Your task to perform on an android device: Clear the shopping cart on costco. Search for "macbook" on costco, select the first entry, add it to the cart, then select checkout. Image 0: 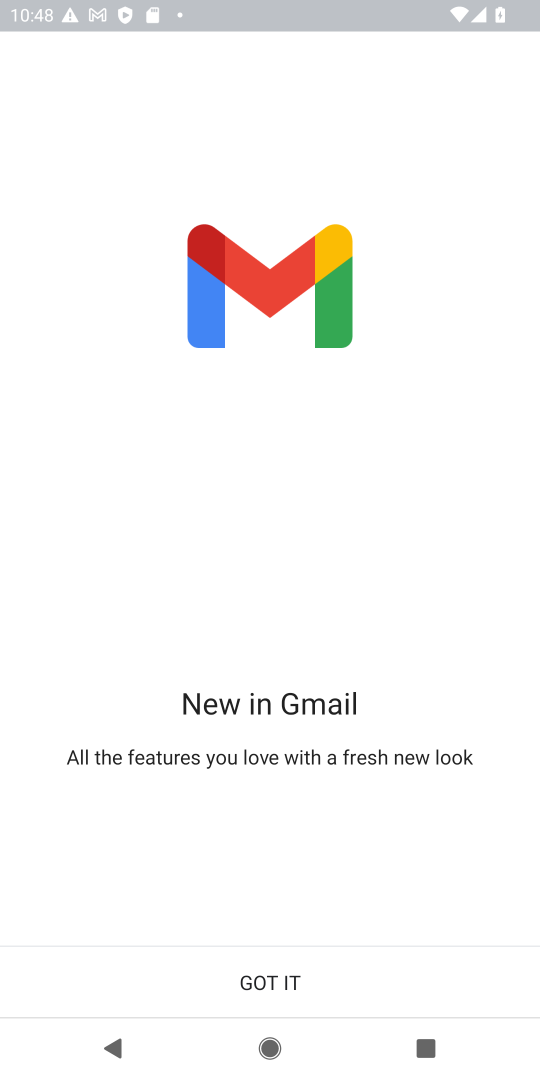
Step 0: press home button
Your task to perform on an android device: Clear the shopping cart on costco. Search for "macbook" on costco, select the first entry, add it to the cart, then select checkout. Image 1: 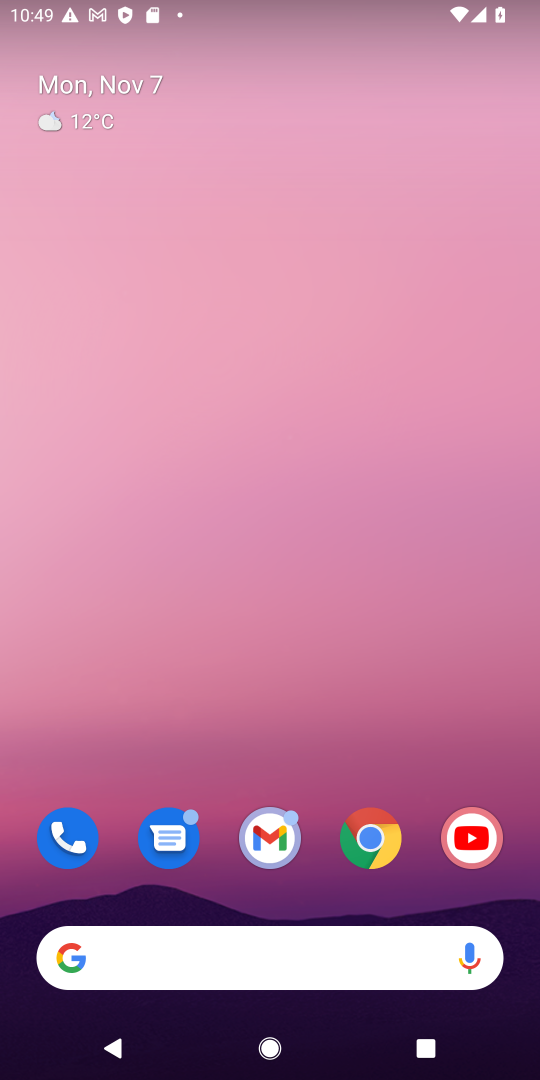
Step 1: click (376, 847)
Your task to perform on an android device: Clear the shopping cart on costco. Search for "macbook" on costco, select the first entry, add it to the cart, then select checkout. Image 2: 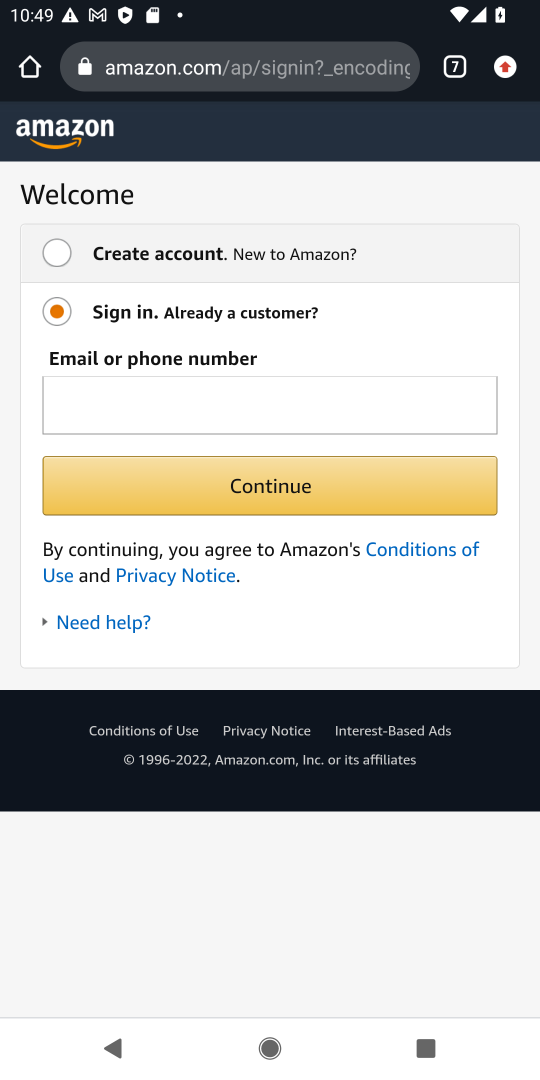
Step 2: click (457, 72)
Your task to perform on an android device: Clear the shopping cart on costco. Search for "macbook" on costco, select the first entry, add it to the cart, then select checkout. Image 3: 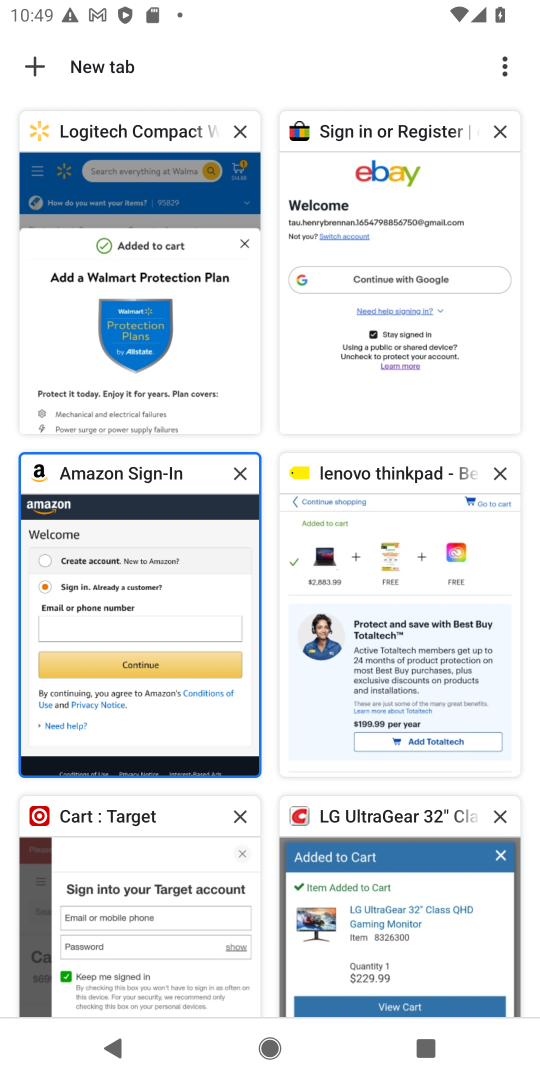
Step 3: click (346, 896)
Your task to perform on an android device: Clear the shopping cart on costco. Search for "macbook" on costco, select the first entry, add it to the cart, then select checkout. Image 4: 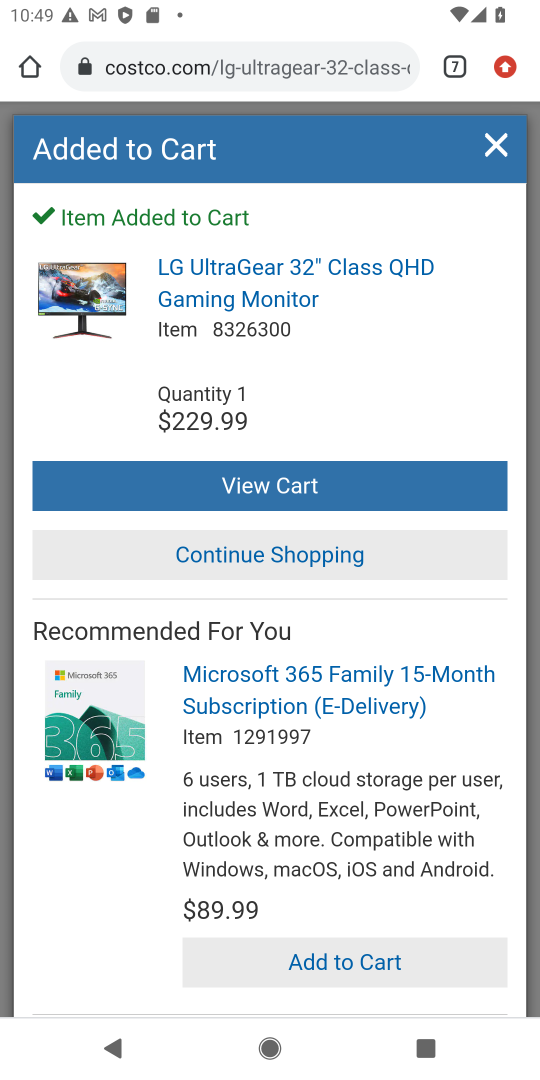
Step 4: click (324, 483)
Your task to perform on an android device: Clear the shopping cart on costco. Search for "macbook" on costco, select the first entry, add it to the cart, then select checkout. Image 5: 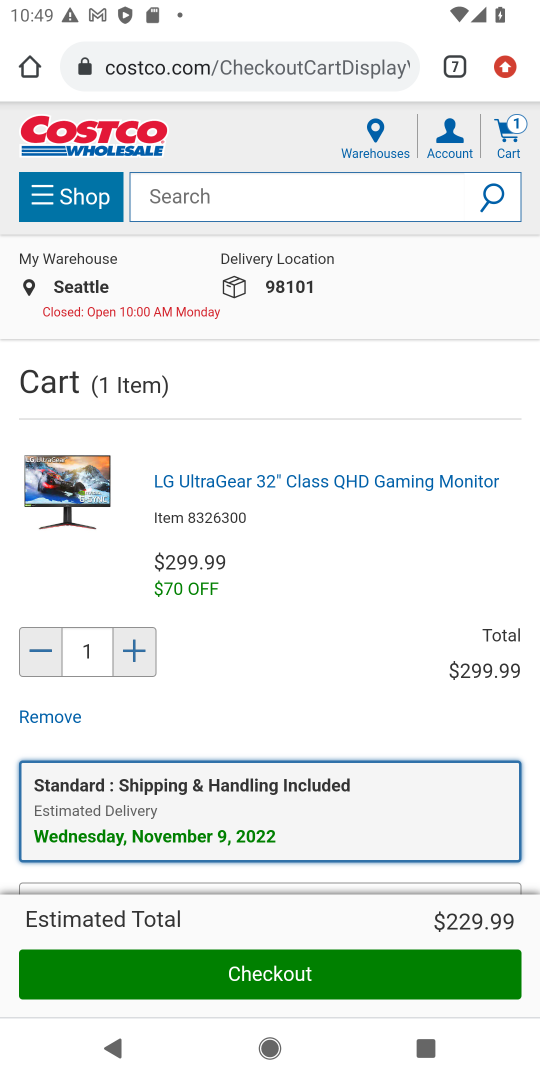
Step 5: click (48, 716)
Your task to perform on an android device: Clear the shopping cart on costco. Search for "macbook" on costco, select the first entry, add it to the cart, then select checkout. Image 6: 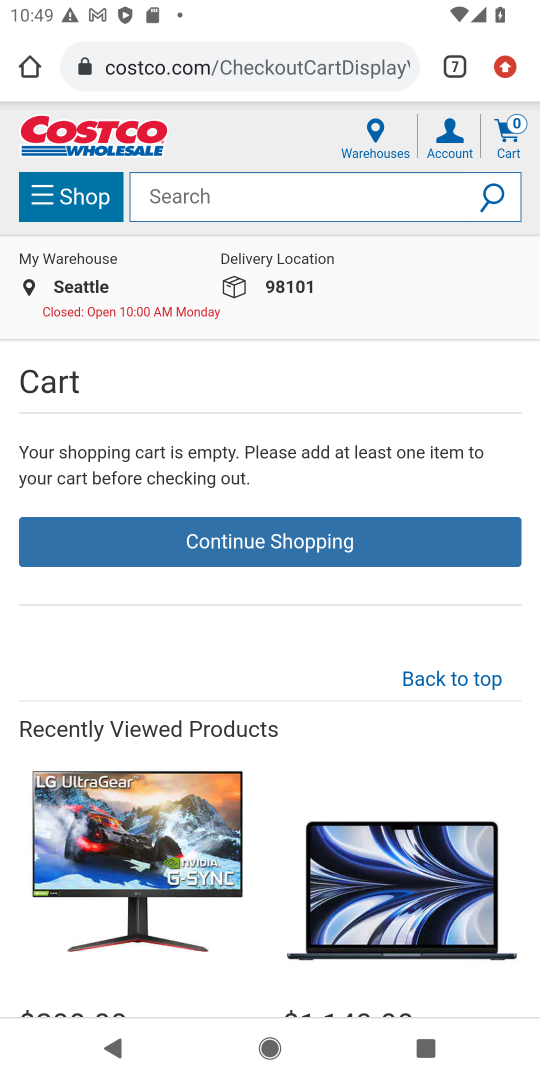
Step 6: click (258, 535)
Your task to perform on an android device: Clear the shopping cart on costco. Search for "macbook" on costco, select the first entry, add it to the cart, then select checkout. Image 7: 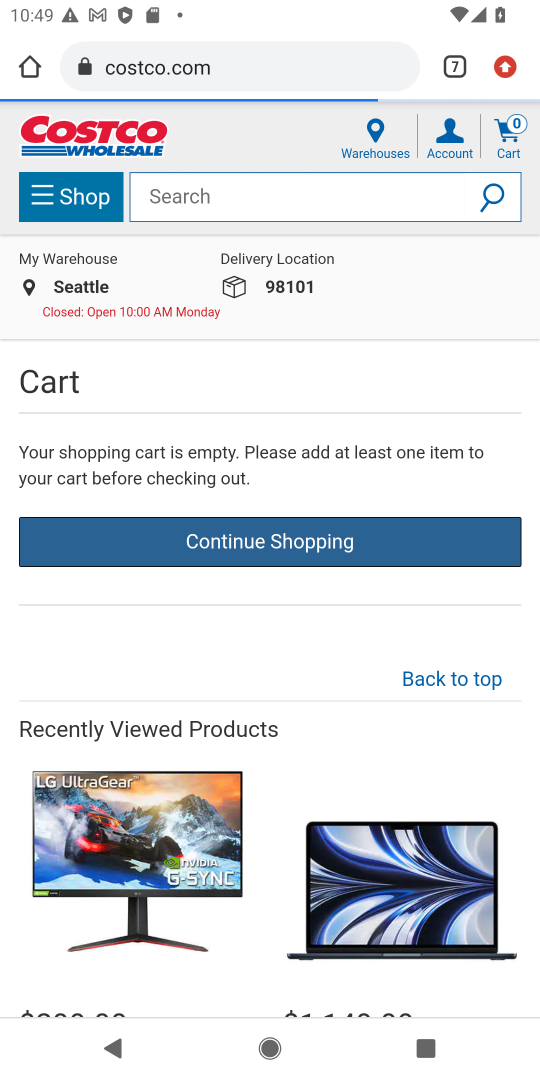
Step 7: click (290, 201)
Your task to perform on an android device: Clear the shopping cart on costco. Search for "macbook" on costco, select the first entry, add it to the cart, then select checkout. Image 8: 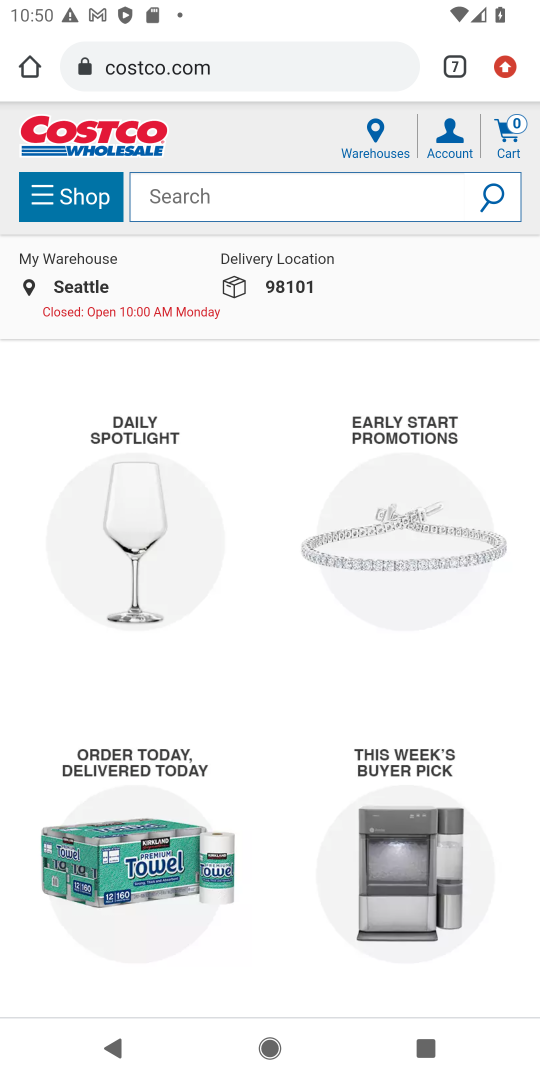
Step 8: type "macbook"
Your task to perform on an android device: Clear the shopping cart on costco. Search for "macbook" on costco, select the first entry, add it to the cart, then select checkout. Image 9: 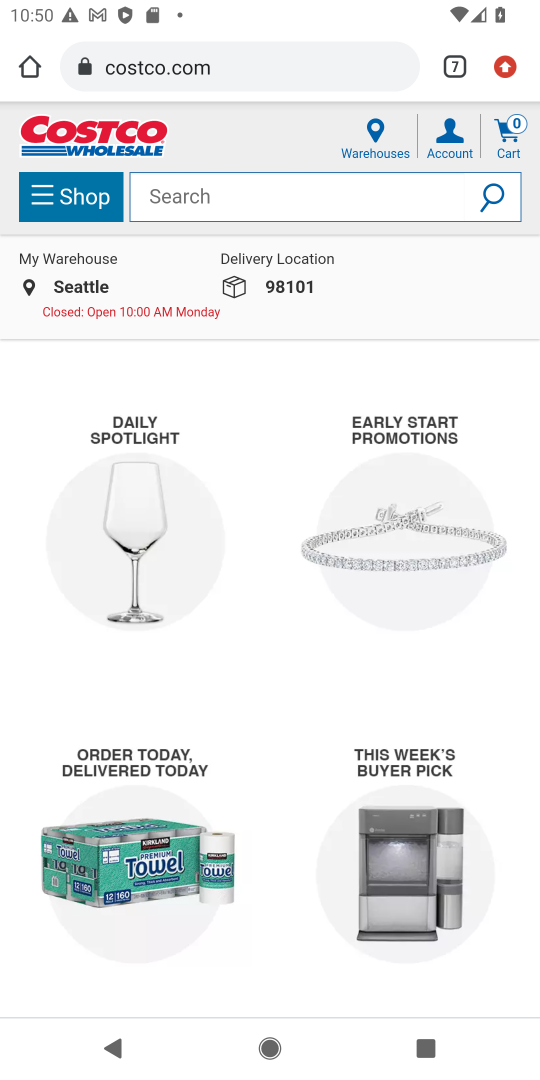
Step 9: click (374, 207)
Your task to perform on an android device: Clear the shopping cart on costco. Search for "macbook" on costco, select the first entry, add it to the cart, then select checkout. Image 10: 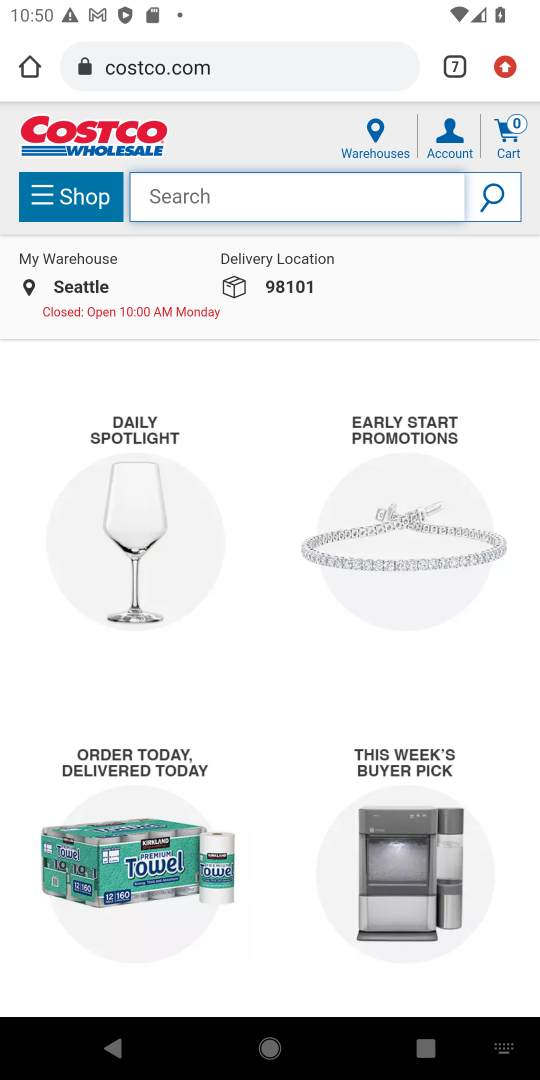
Step 10: type "macbook"
Your task to perform on an android device: Clear the shopping cart on costco. Search for "macbook" on costco, select the first entry, add it to the cart, then select checkout. Image 11: 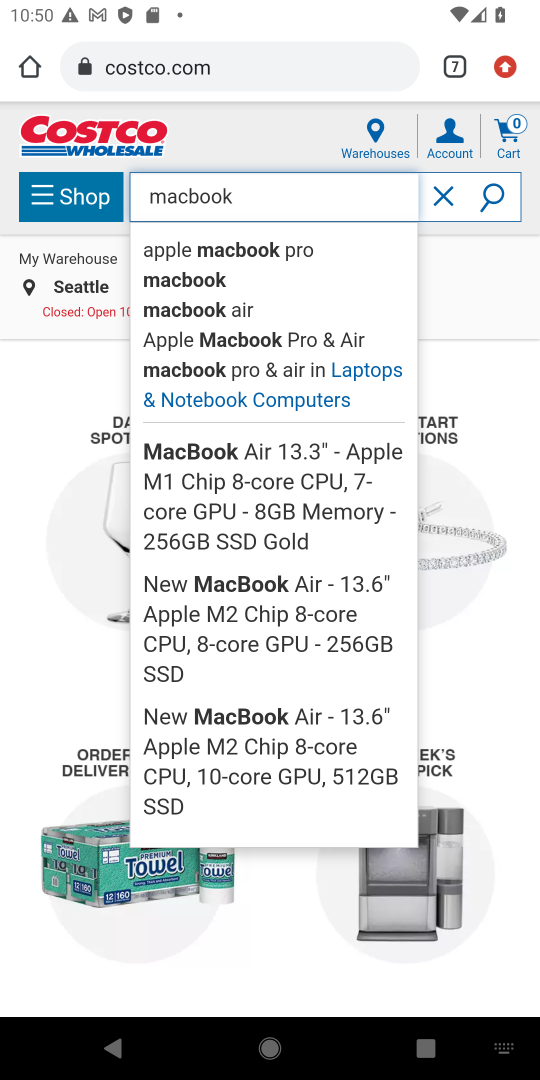
Step 11: click (200, 247)
Your task to perform on an android device: Clear the shopping cart on costco. Search for "macbook" on costco, select the first entry, add it to the cart, then select checkout. Image 12: 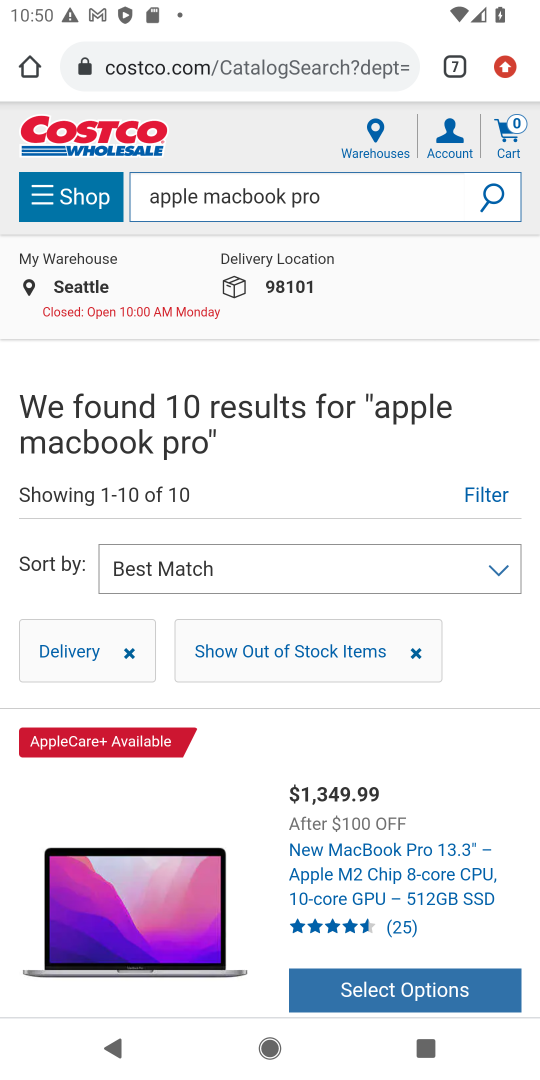
Step 12: click (386, 901)
Your task to perform on an android device: Clear the shopping cart on costco. Search for "macbook" on costco, select the first entry, add it to the cart, then select checkout. Image 13: 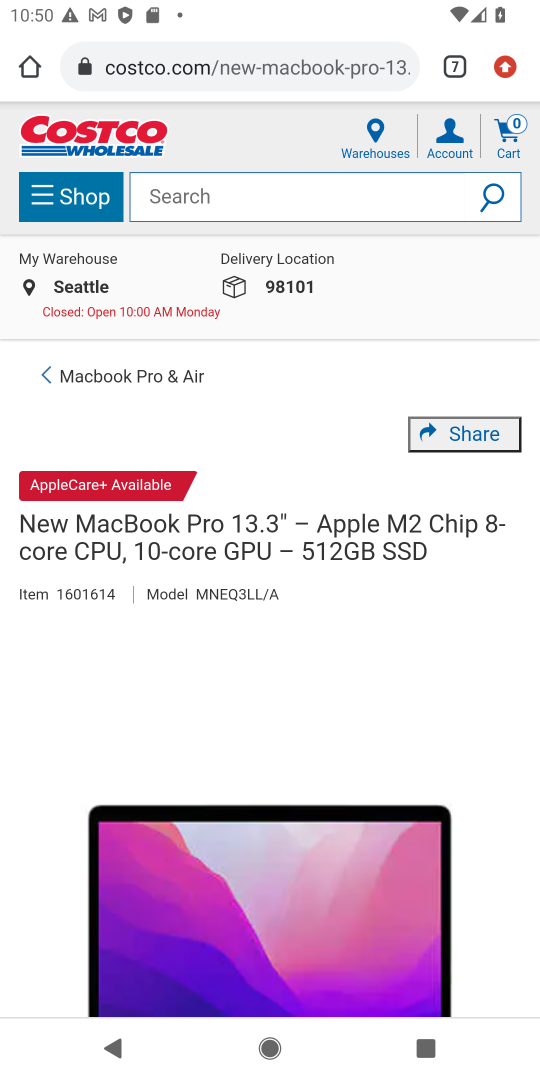
Step 13: drag from (469, 920) to (446, 306)
Your task to perform on an android device: Clear the shopping cart on costco. Search for "macbook" on costco, select the first entry, add it to the cart, then select checkout. Image 14: 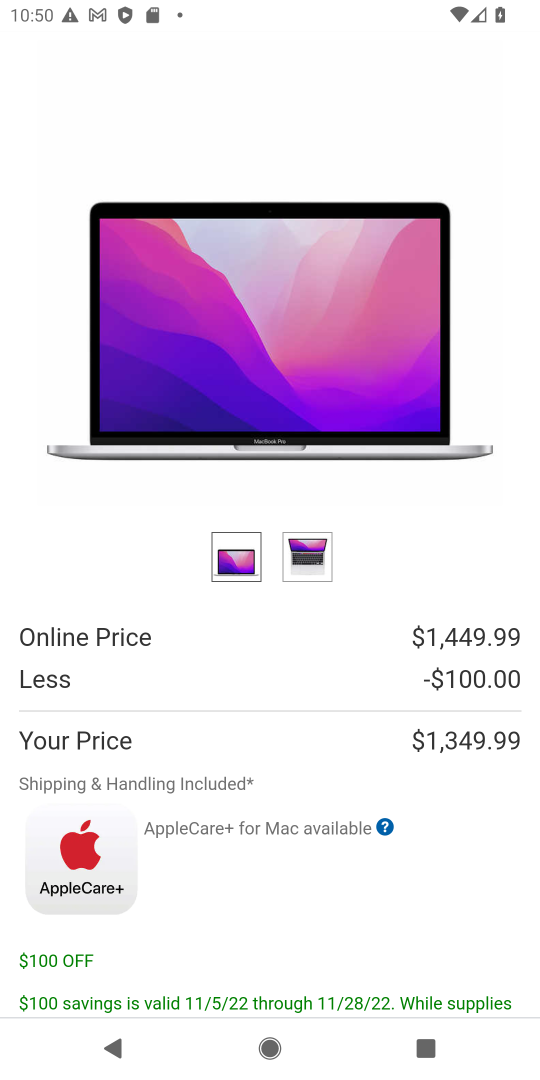
Step 14: drag from (338, 898) to (360, 247)
Your task to perform on an android device: Clear the shopping cart on costco. Search for "macbook" on costco, select the first entry, add it to the cart, then select checkout. Image 15: 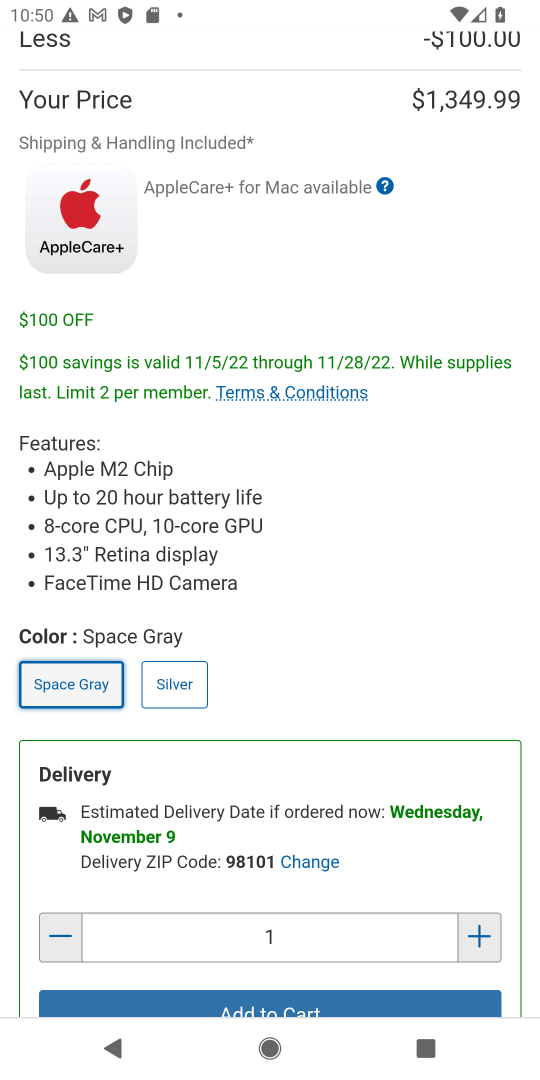
Step 15: drag from (362, 840) to (414, 199)
Your task to perform on an android device: Clear the shopping cart on costco. Search for "macbook" on costco, select the first entry, add it to the cart, then select checkout. Image 16: 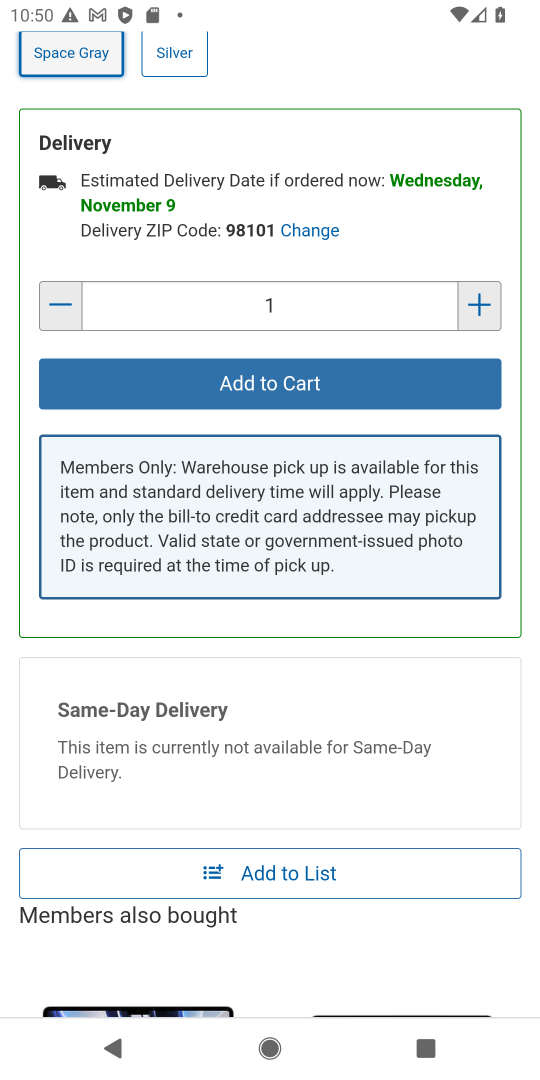
Step 16: click (322, 380)
Your task to perform on an android device: Clear the shopping cart on costco. Search for "macbook" on costco, select the first entry, add it to the cart, then select checkout. Image 17: 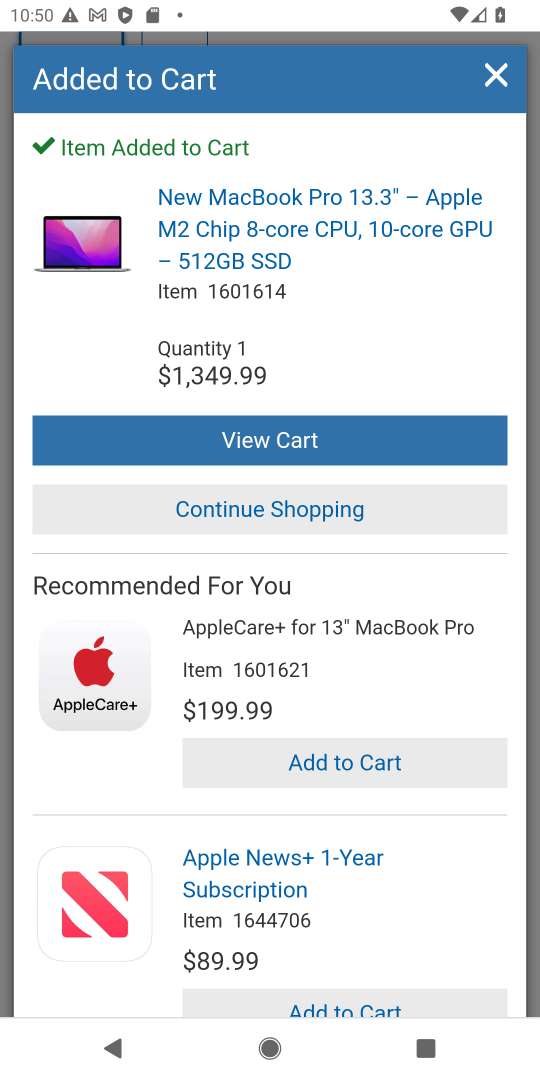
Step 17: task complete